Your task to perform on an android device: Open my contact list Image 0: 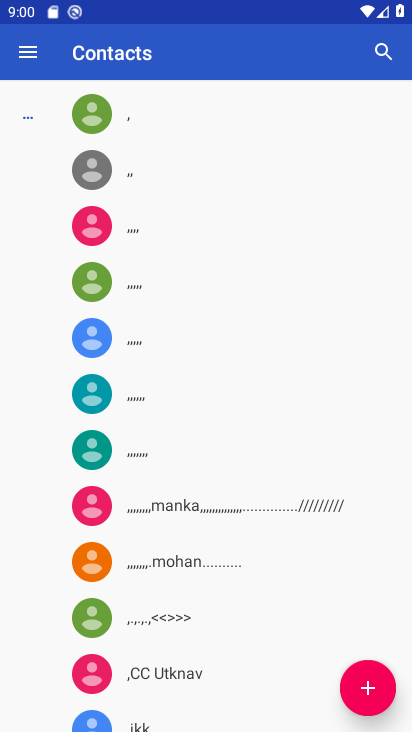
Step 0: press home button
Your task to perform on an android device: Open my contact list Image 1: 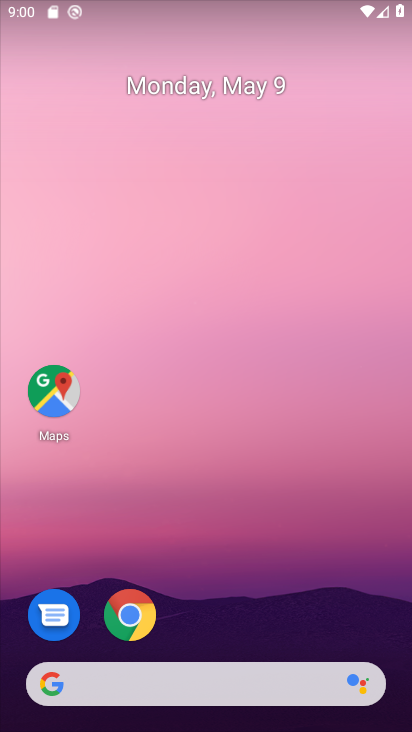
Step 1: drag from (246, 709) to (402, 132)
Your task to perform on an android device: Open my contact list Image 2: 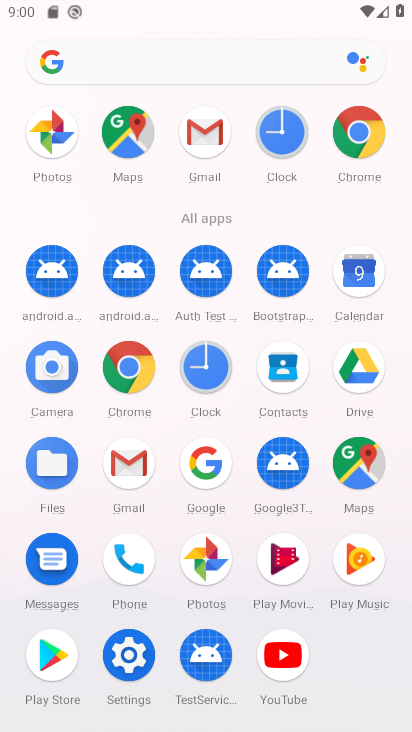
Step 2: click (136, 554)
Your task to perform on an android device: Open my contact list Image 3: 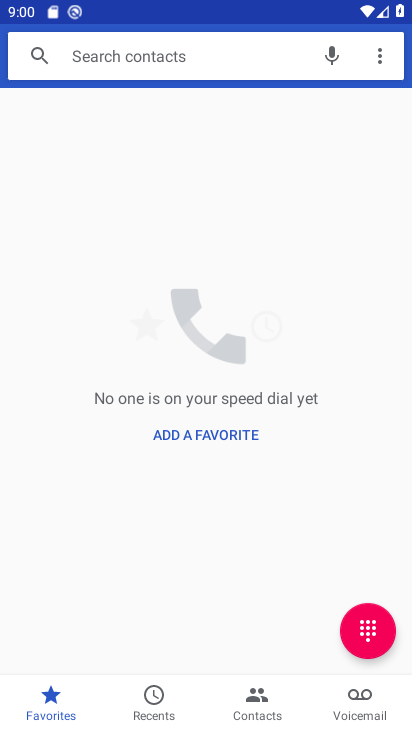
Step 3: click (256, 700)
Your task to perform on an android device: Open my contact list Image 4: 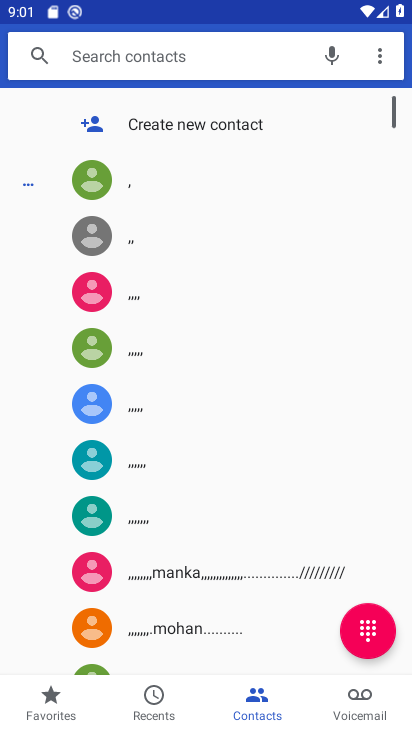
Step 4: task complete